Your task to perform on an android device: change the clock style Image 0: 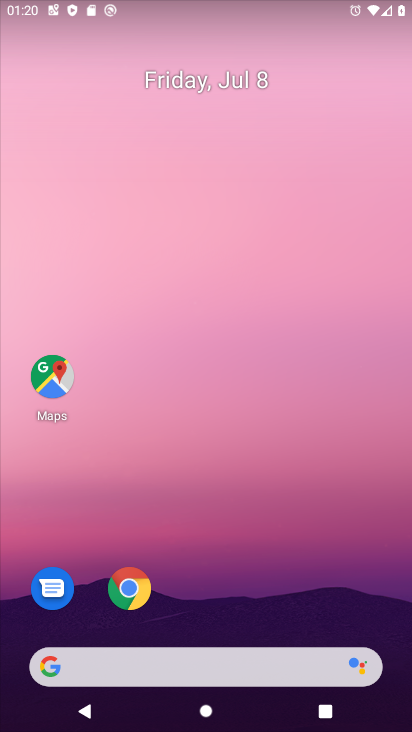
Step 0: click (212, 0)
Your task to perform on an android device: change the clock style Image 1: 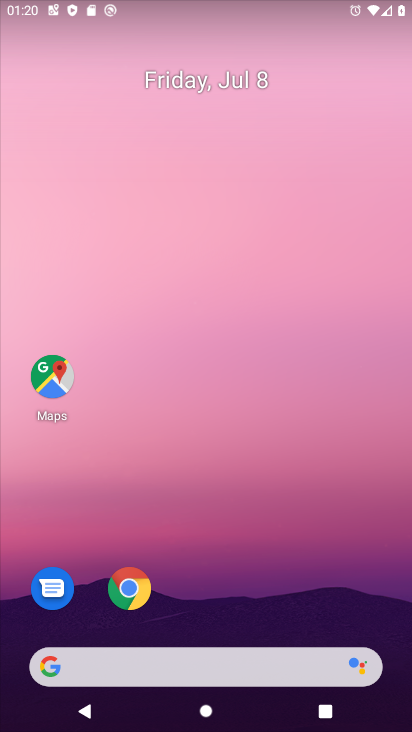
Step 1: drag from (196, 630) to (169, 1)
Your task to perform on an android device: change the clock style Image 2: 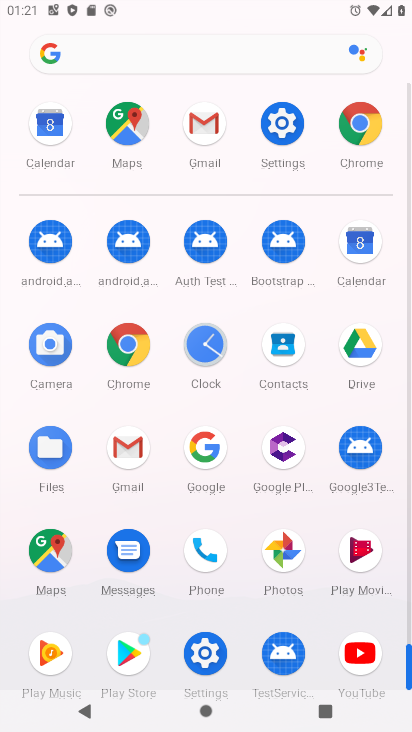
Step 2: click (204, 362)
Your task to perform on an android device: change the clock style Image 3: 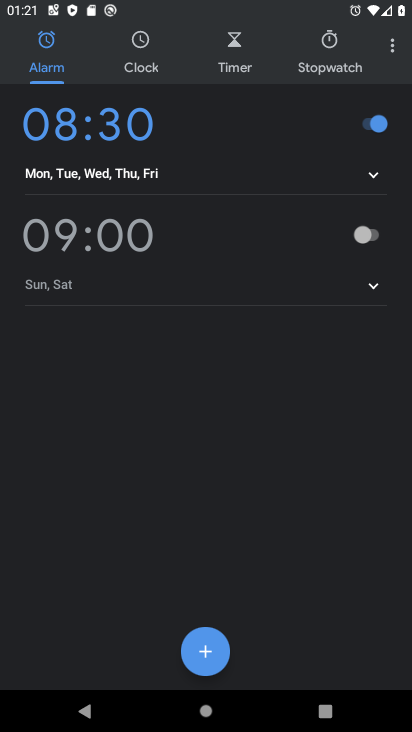
Step 3: click (396, 42)
Your task to perform on an android device: change the clock style Image 4: 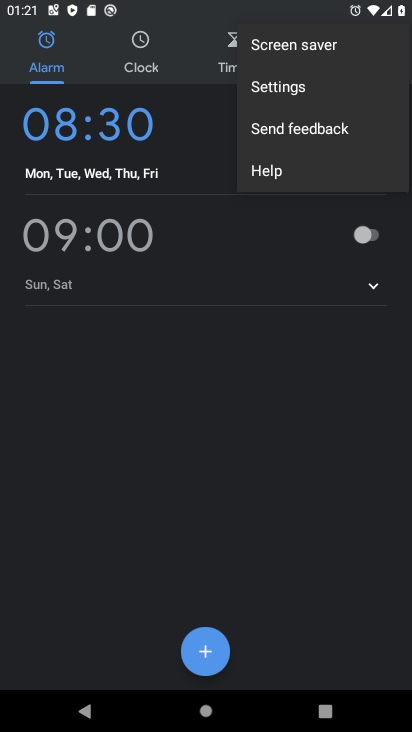
Step 4: click (312, 96)
Your task to perform on an android device: change the clock style Image 5: 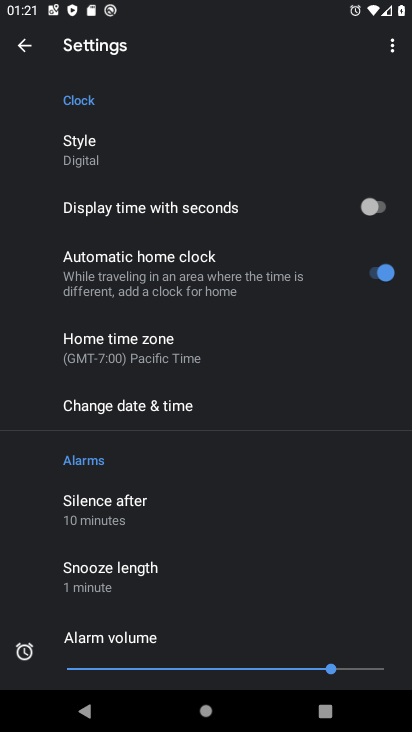
Step 5: drag from (228, 514) to (227, 715)
Your task to perform on an android device: change the clock style Image 6: 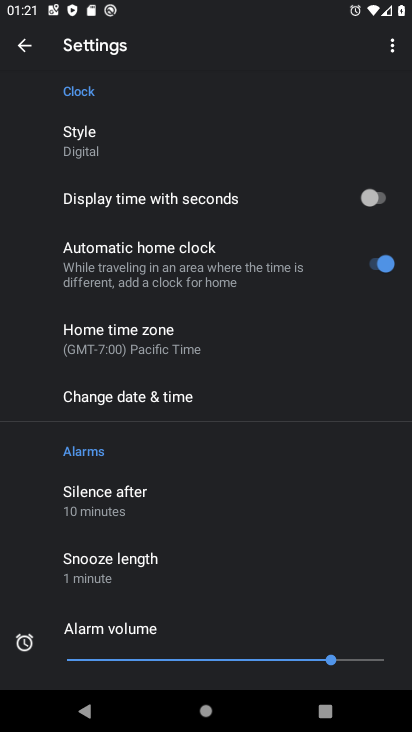
Step 6: click (123, 147)
Your task to perform on an android device: change the clock style Image 7: 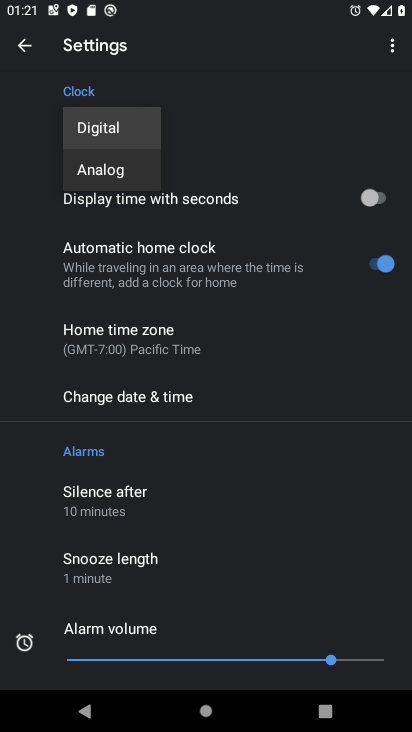
Step 7: click (133, 158)
Your task to perform on an android device: change the clock style Image 8: 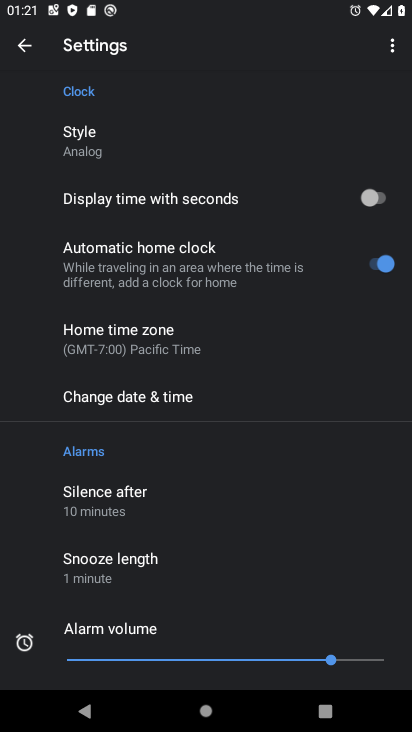
Step 8: task complete